Your task to perform on an android device: turn on notifications settings in the gmail app Image 0: 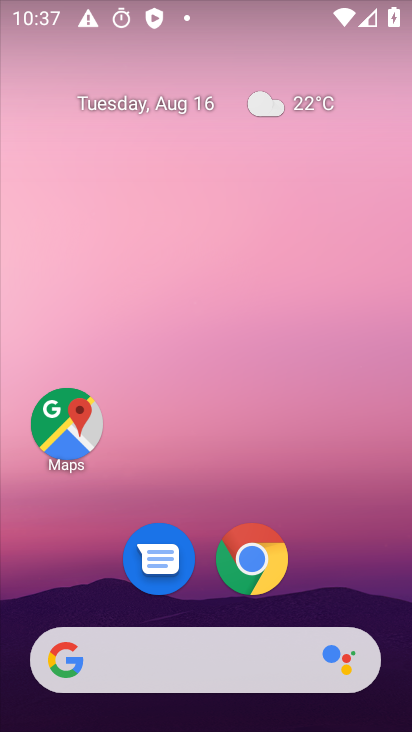
Step 0: drag from (204, 545) to (238, 73)
Your task to perform on an android device: turn on notifications settings in the gmail app Image 1: 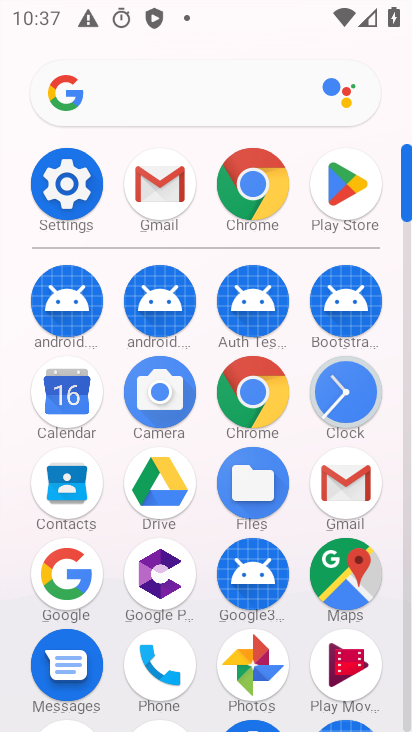
Step 1: click (151, 180)
Your task to perform on an android device: turn on notifications settings in the gmail app Image 2: 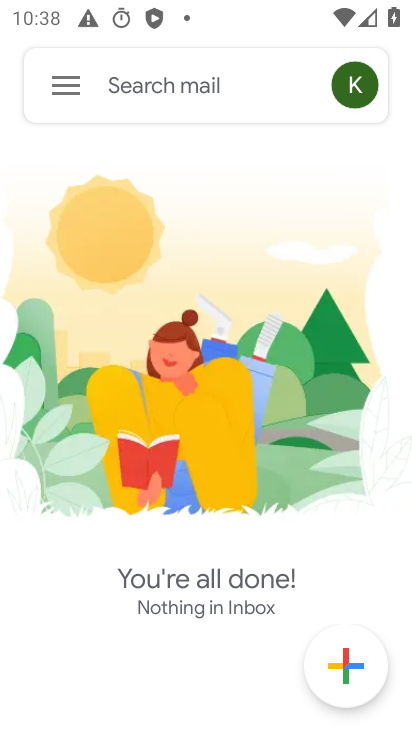
Step 2: click (64, 86)
Your task to perform on an android device: turn on notifications settings in the gmail app Image 3: 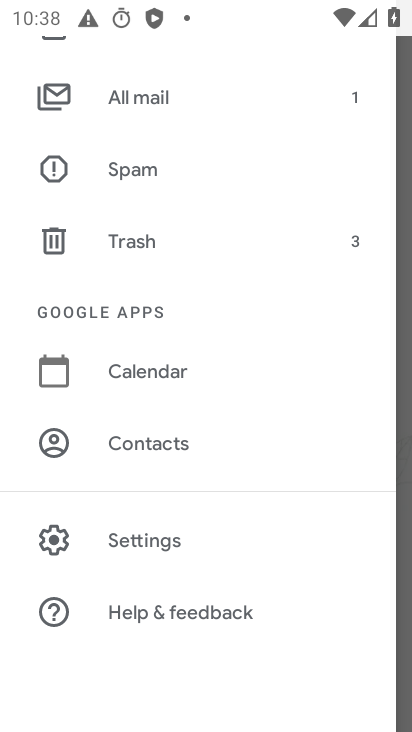
Step 3: click (133, 541)
Your task to perform on an android device: turn on notifications settings in the gmail app Image 4: 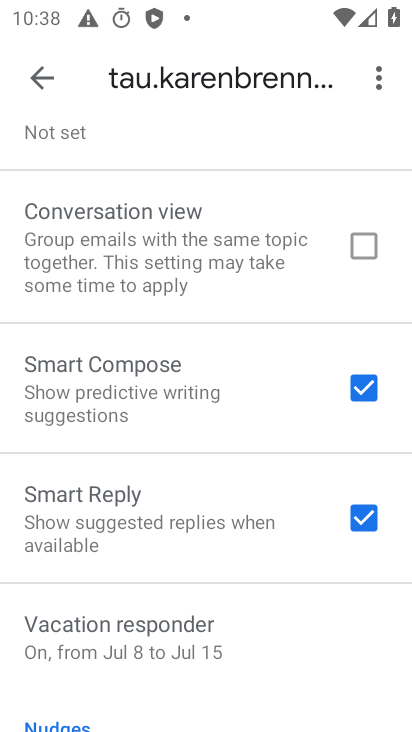
Step 4: drag from (257, 220) to (244, 676)
Your task to perform on an android device: turn on notifications settings in the gmail app Image 5: 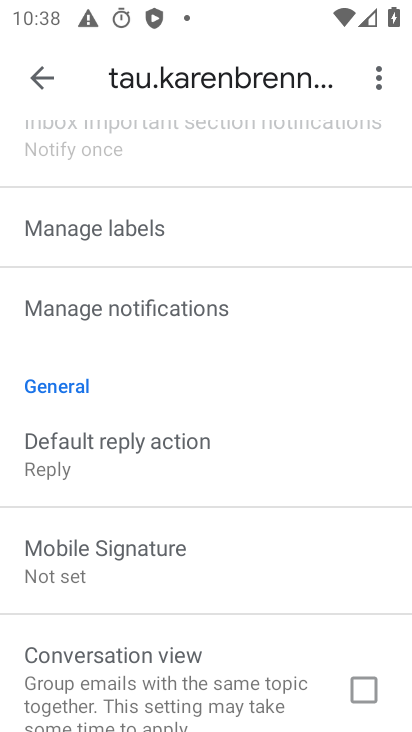
Step 5: drag from (283, 312) to (172, 598)
Your task to perform on an android device: turn on notifications settings in the gmail app Image 6: 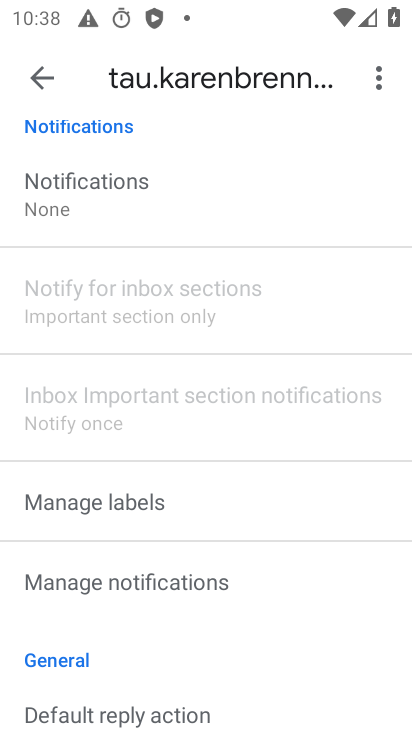
Step 6: drag from (216, 204) to (126, 730)
Your task to perform on an android device: turn on notifications settings in the gmail app Image 7: 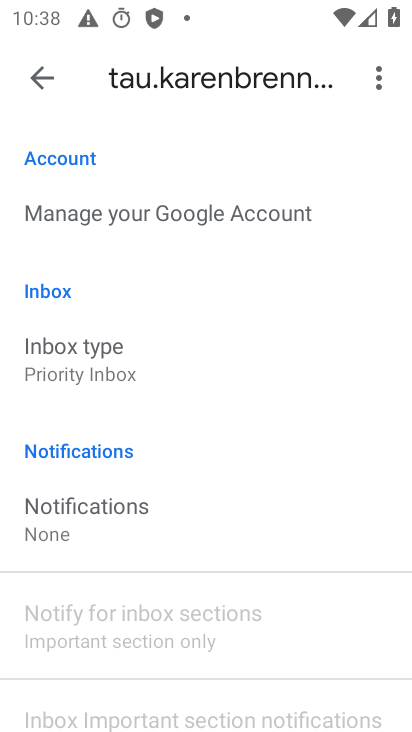
Step 7: click (94, 517)
Your task to perform on an android device: turn on notifications settings in the gmail app Image 8: 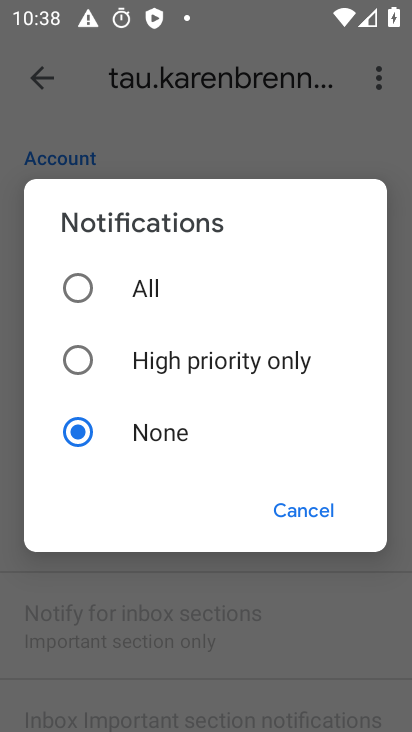
Step 8: click (76, 298)
Your task to perform on an android device: turn on notifications settings in the gmail app Image 9: 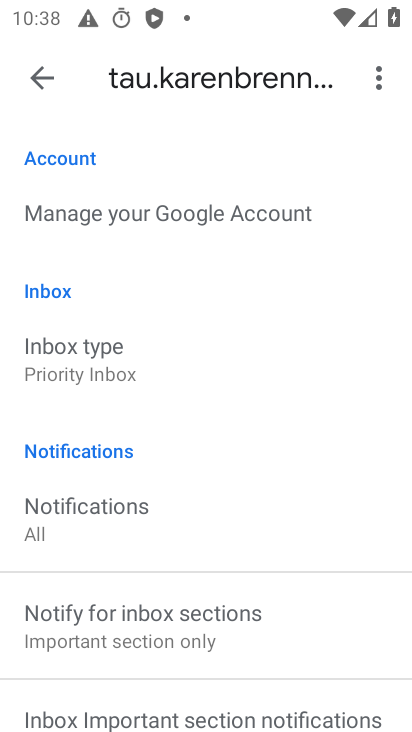
Step 9: task complete